Your task to perform on an android device: open the mobile data screen to see how much data has been used Image 0: 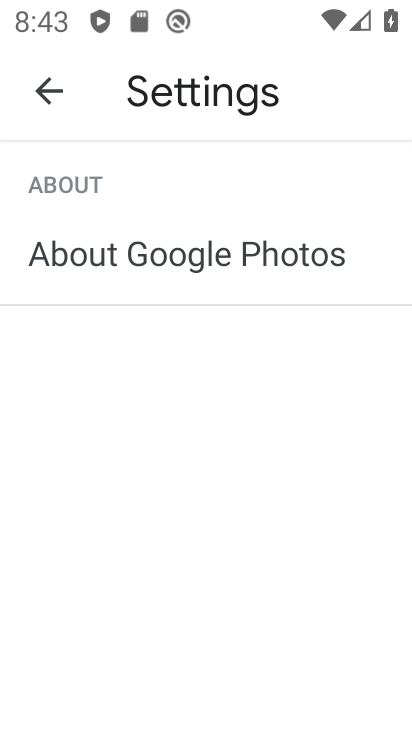
Step 0: press home button
Your task to perform on an android device: open the mobile data screen to see how much data has been used Image 1: 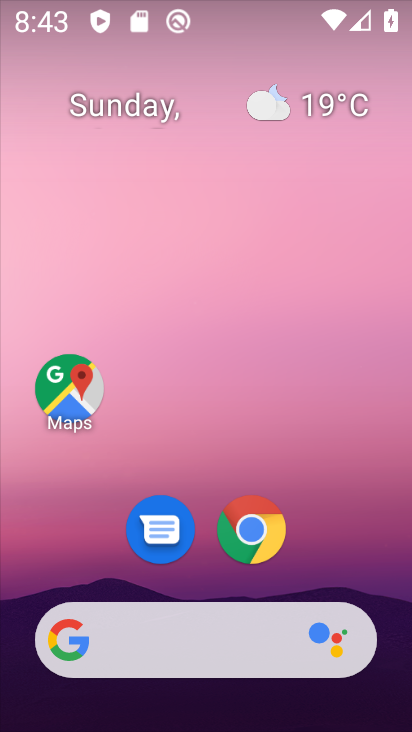
Step 1: drag from (34, 603) to (209, 111)
Your task to perform on an android device: open the mobile data screen to see how much data has been used Image 2: 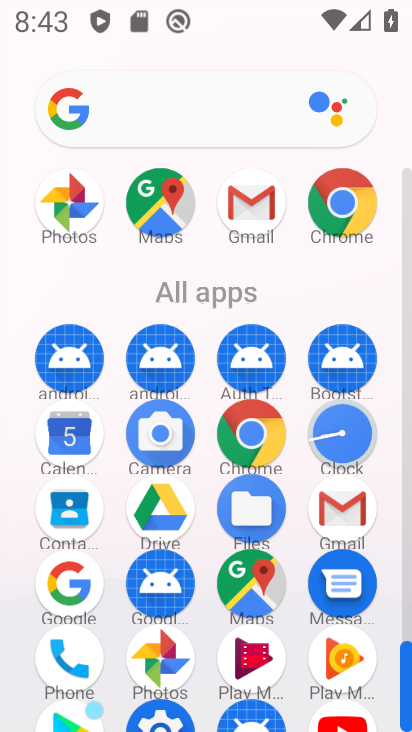
Step 2: drag from (175, 581) to (269, 260)
Your task to perform on an android device: open the mobile data screen to see how much data has been used Image 3: 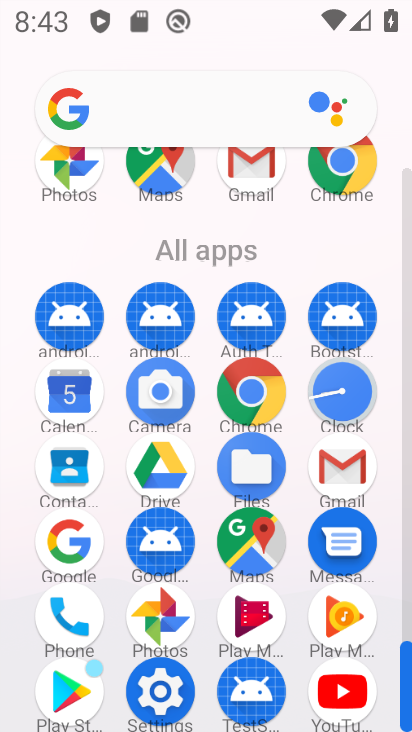
Step 3: click (153, 675)
Your task to perform on an android device: open the mobile data screen to see how much data has been used Image 4: 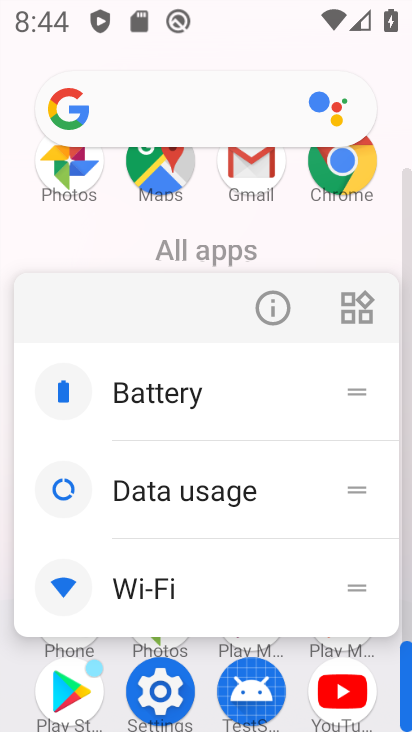
Step 4: click (126, 689)
Your task to perform on an android device: open the mobile data screen to see how much data has been used Image 5: 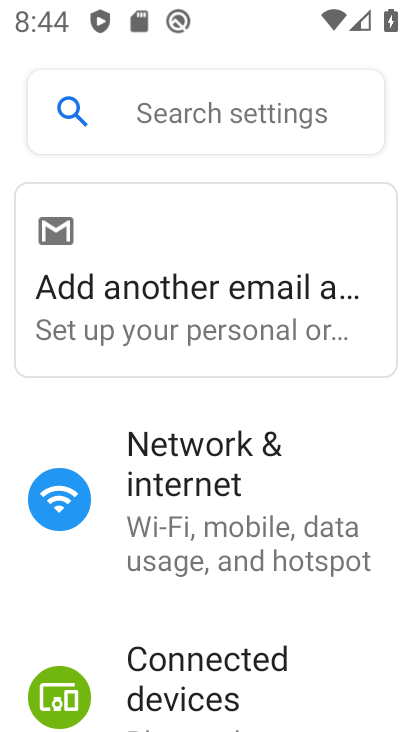
Step 5: click (219, 545)
Your task to perform on an android device: open the mobile data screen to see how much data has been used Image 6: 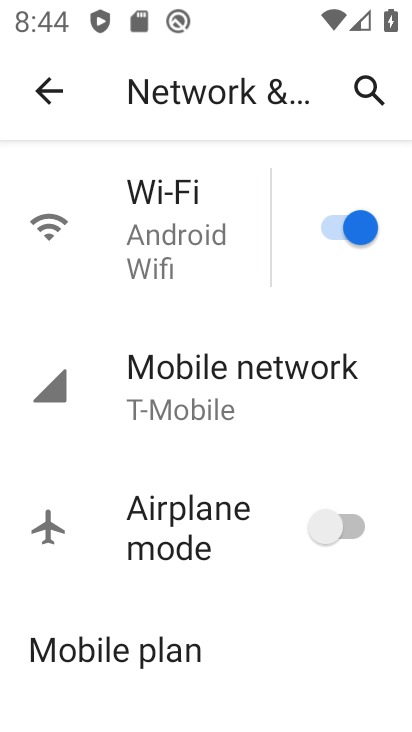
Step 6: click (197, 409)
Your task to perform on an android device: open the mobile data screen to see how much data has been used Image 7: 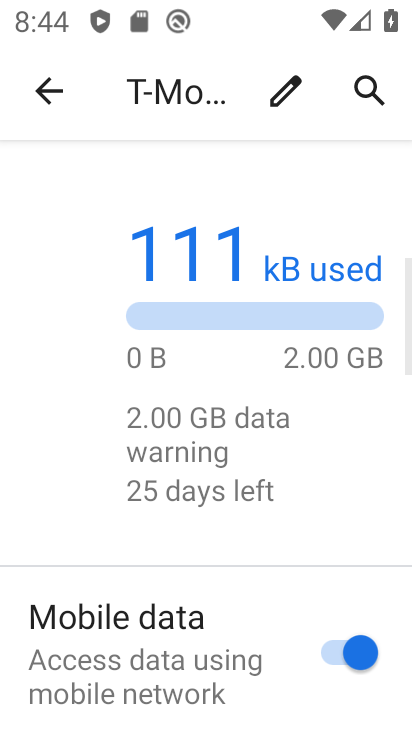
Step 7: task complete